Your task to perform on an android device: Open sound settings Image 0: 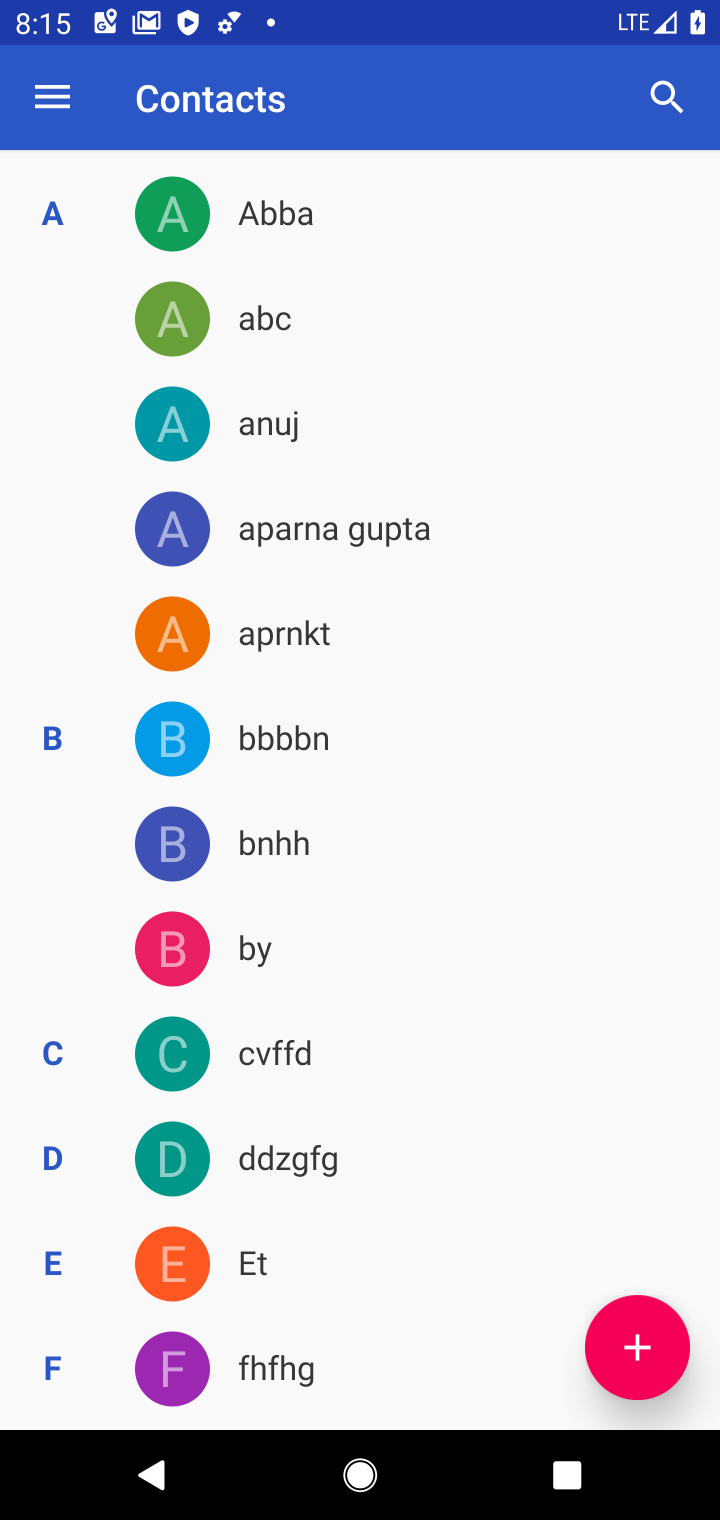
Step 0: press home button
Your task to perform on an android device: Open sound settings Image 1: 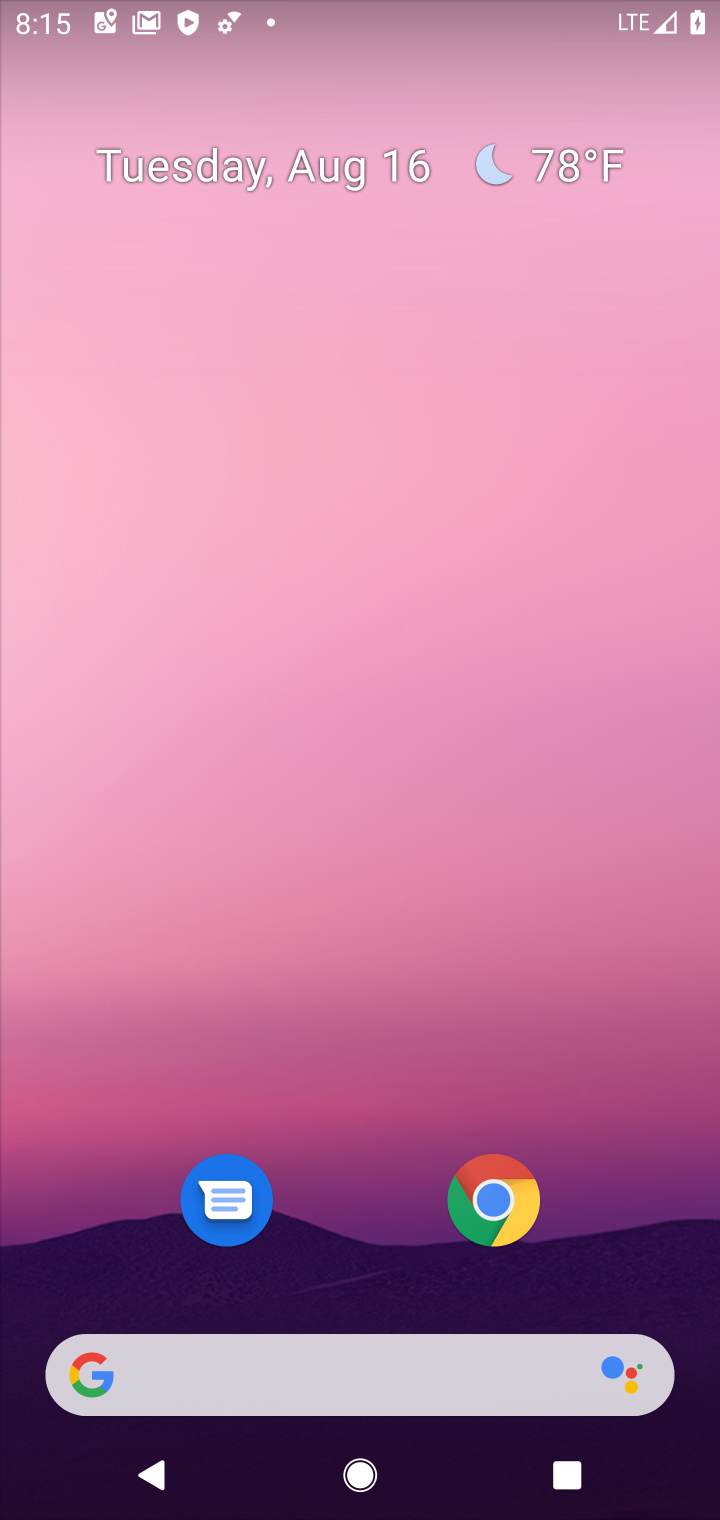
Step 1: drag from (707, 1253) to (563, 326)
Your task to perform on an android device: Open sound settings Image 2: 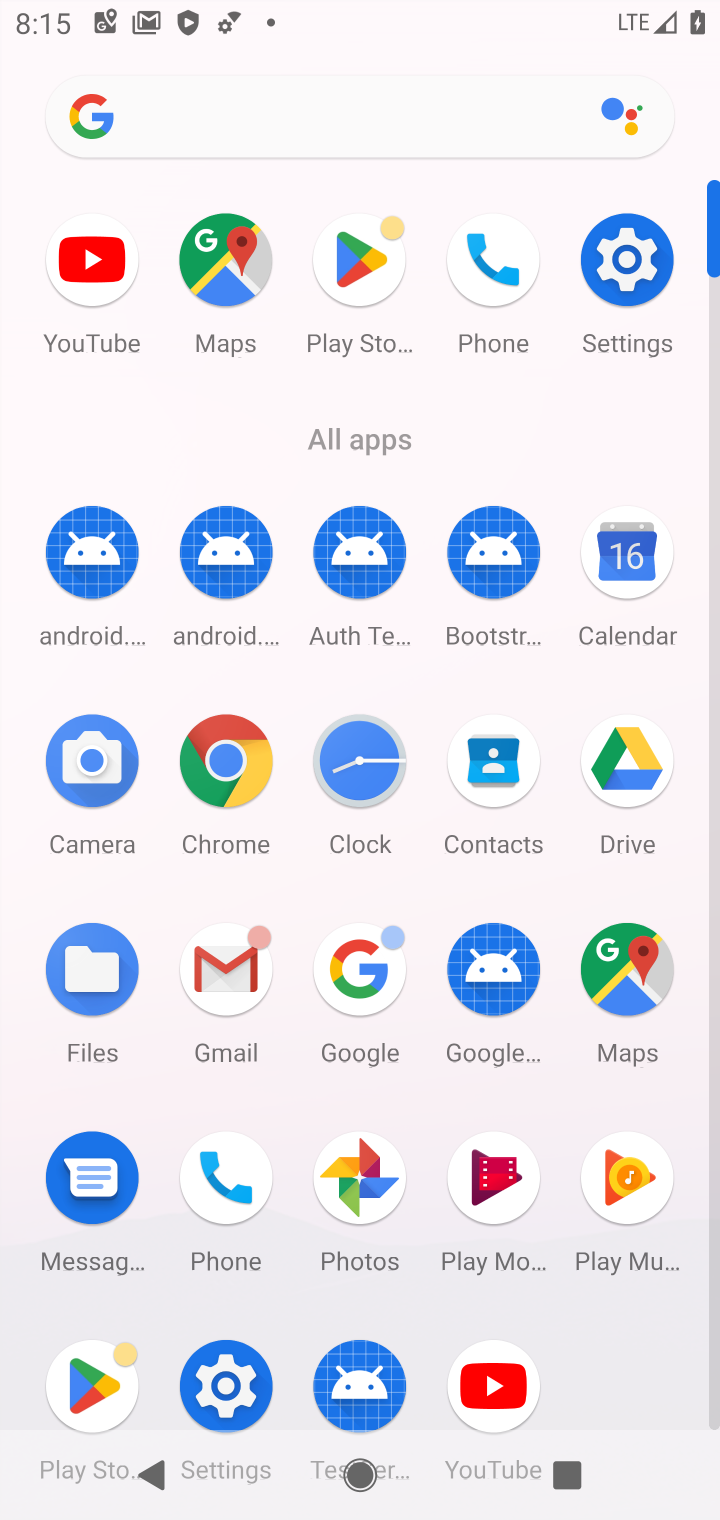
Step 2: click (227, 1387)
Your task to perform on an android device: Open sound settings Image 3: 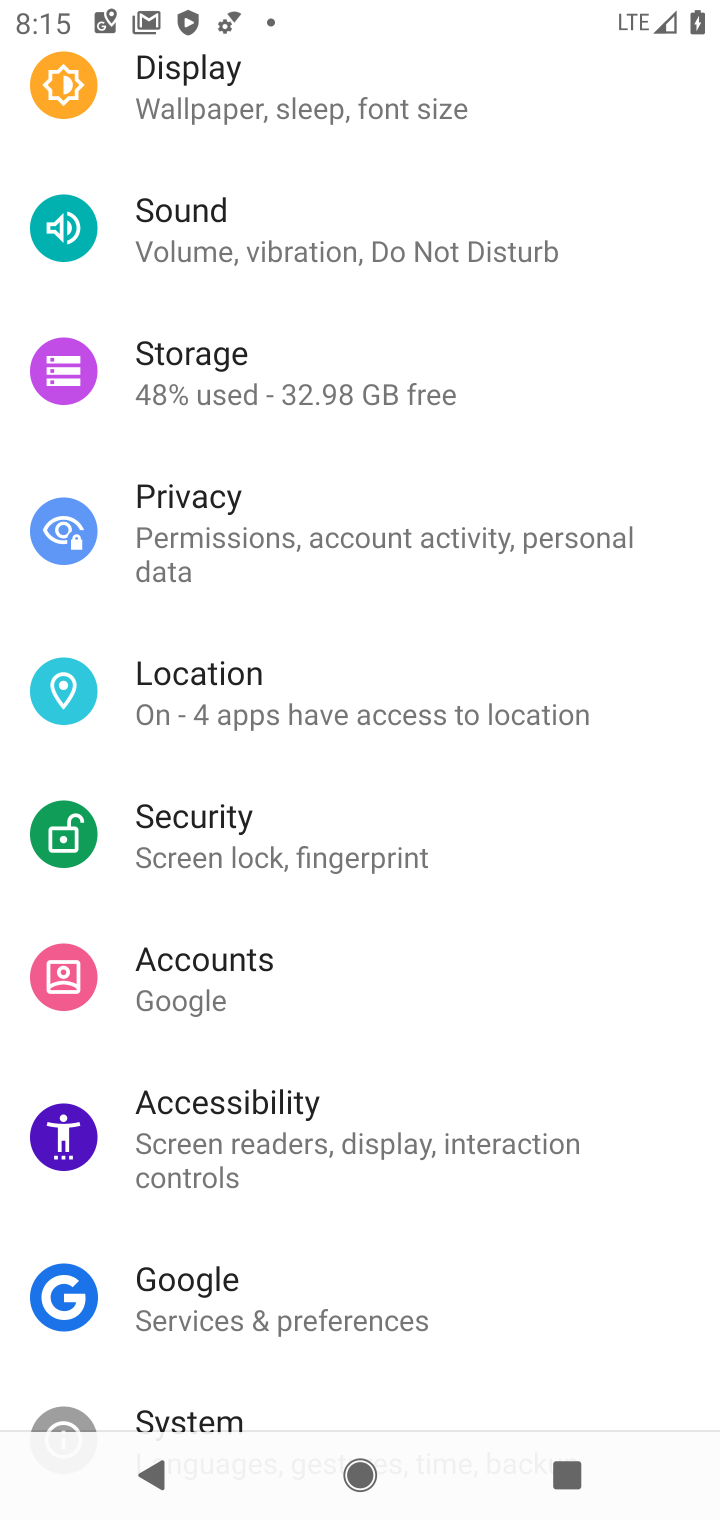
Step 3: click (210, 229)
Your task to perform on an android device: Open sound settings Image 4: 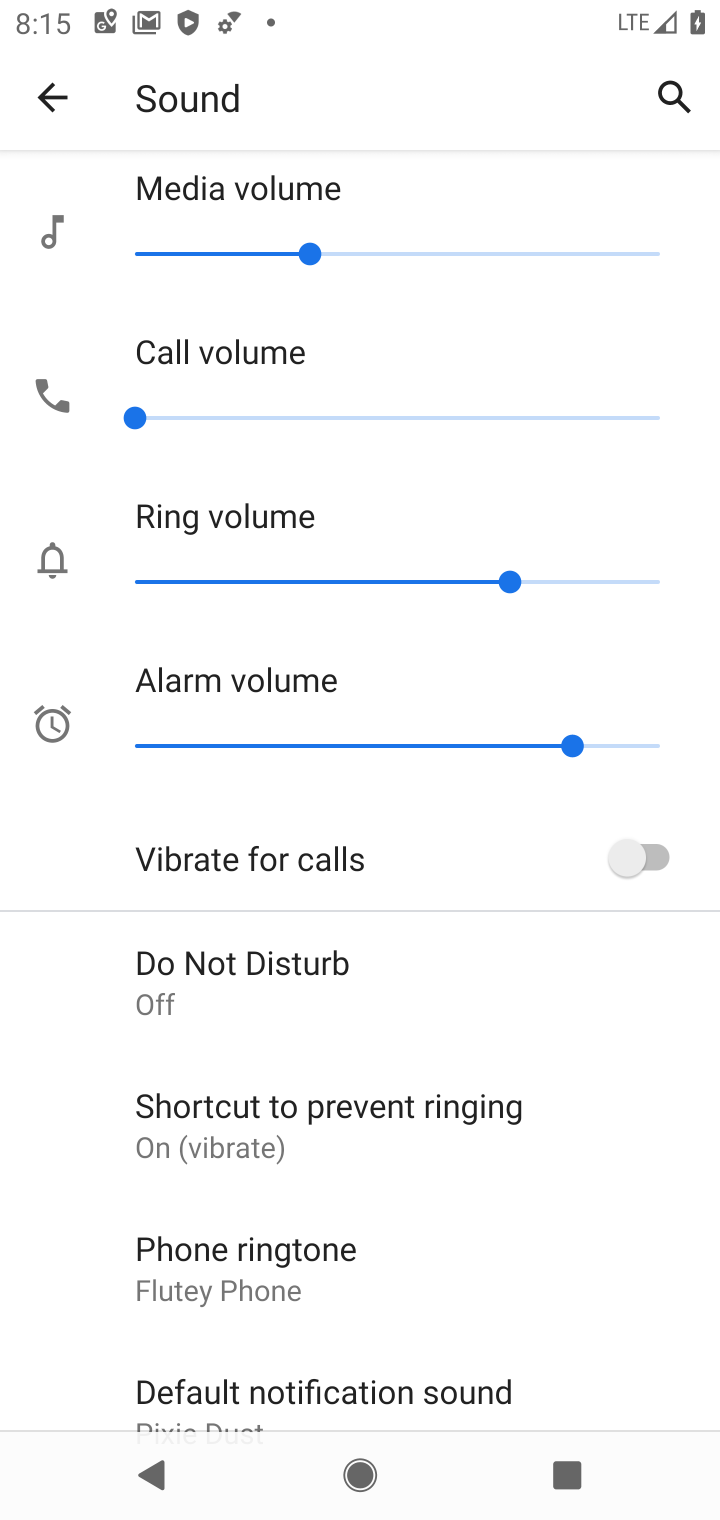
Step 4: drag from (519, 1242) to (528, 758)
Your task to perform on an android device: Open sound settings Image 5: 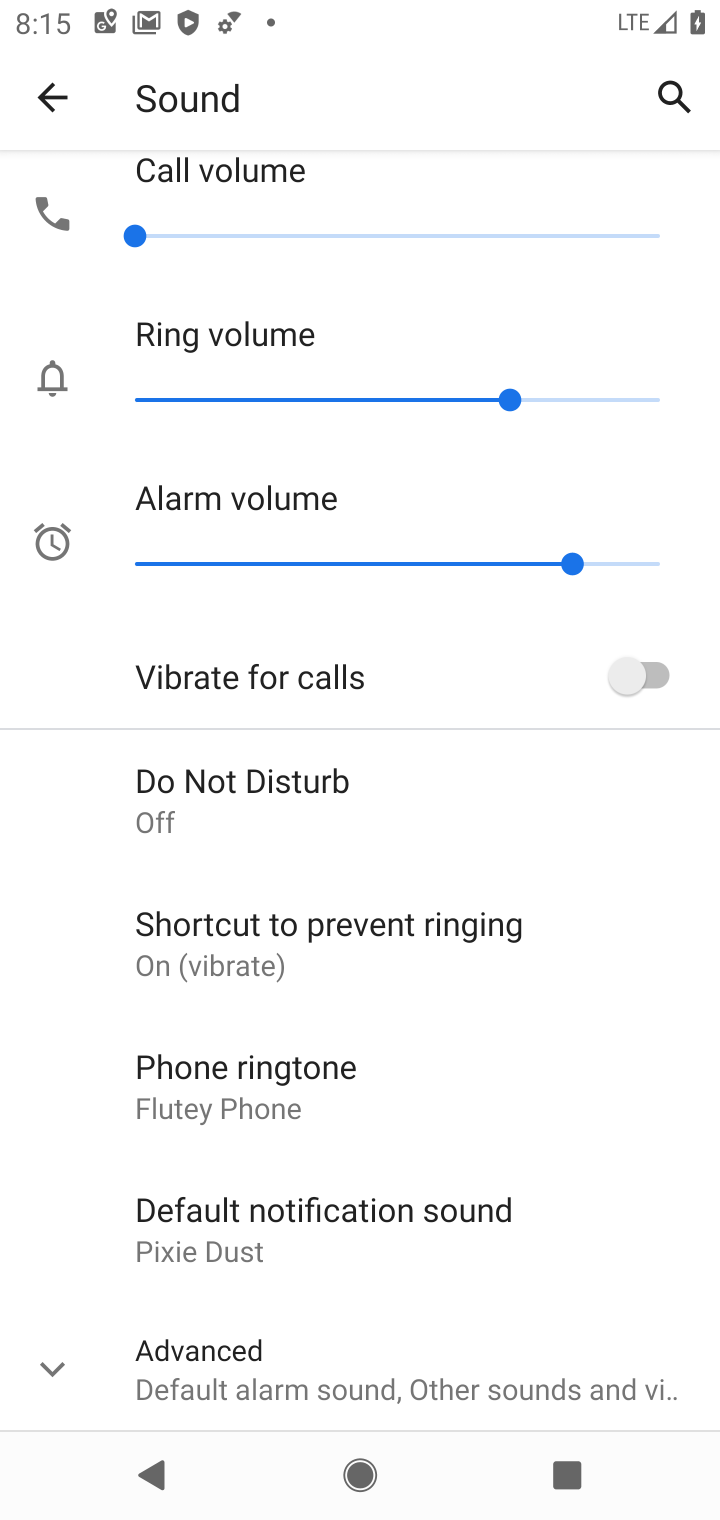
Step 5: drag from (524, 1223) to (521, 479)
Your task to perform on an android device: Open sound settings Image 6: 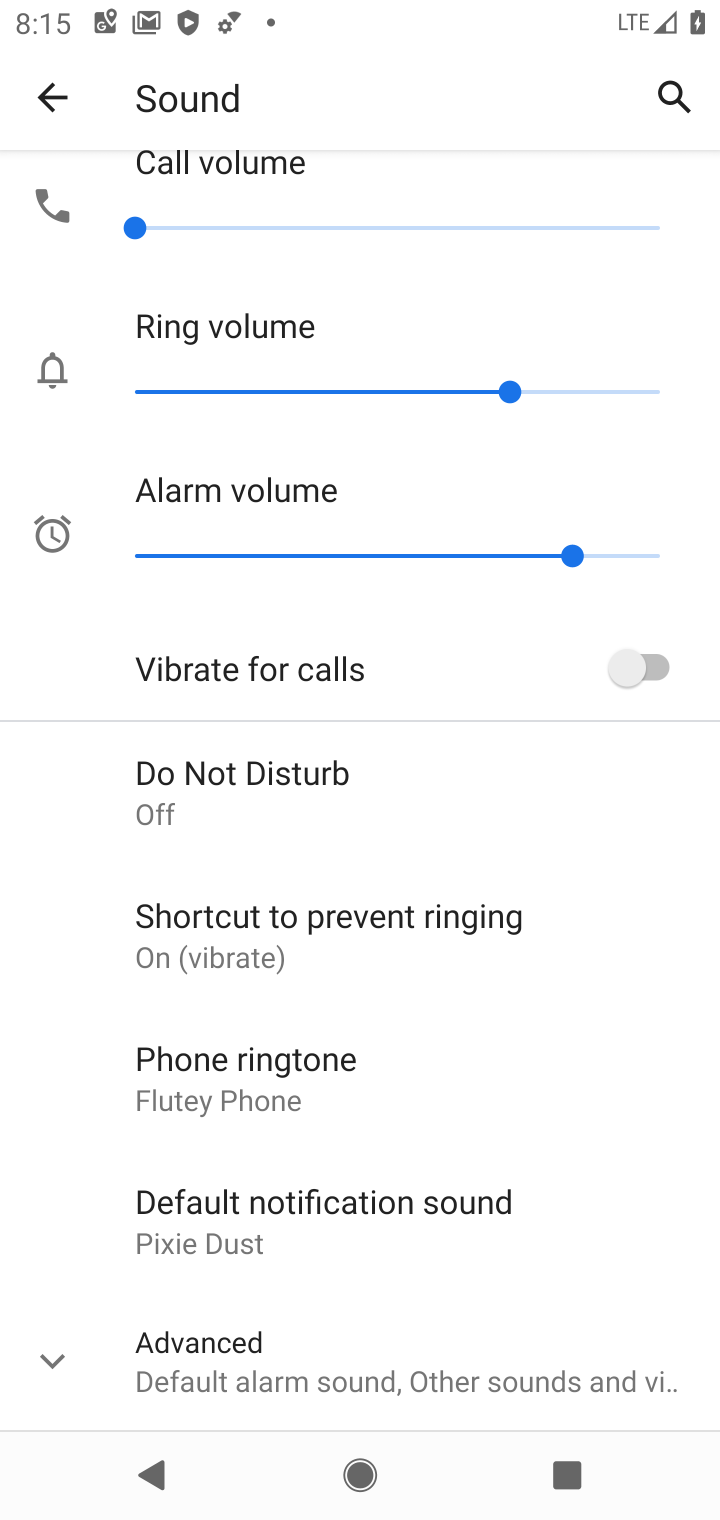
Step 6: drag from (469, 1172) to (490, 472)
Your task to perform on an android device: Open sound settings Image 7: 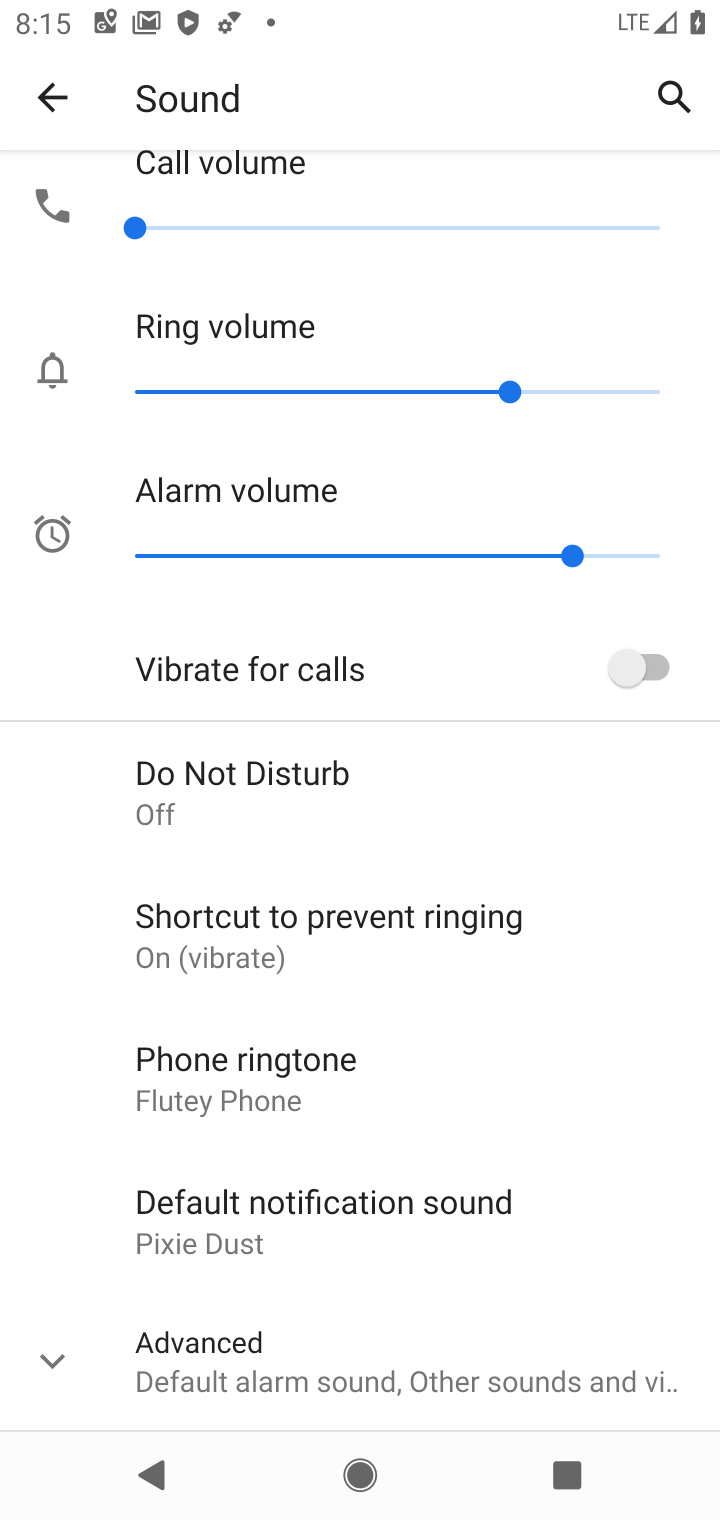
Step 7: click (49, 1360)
Your task to perform on an android device: Open sound settings Image 8: 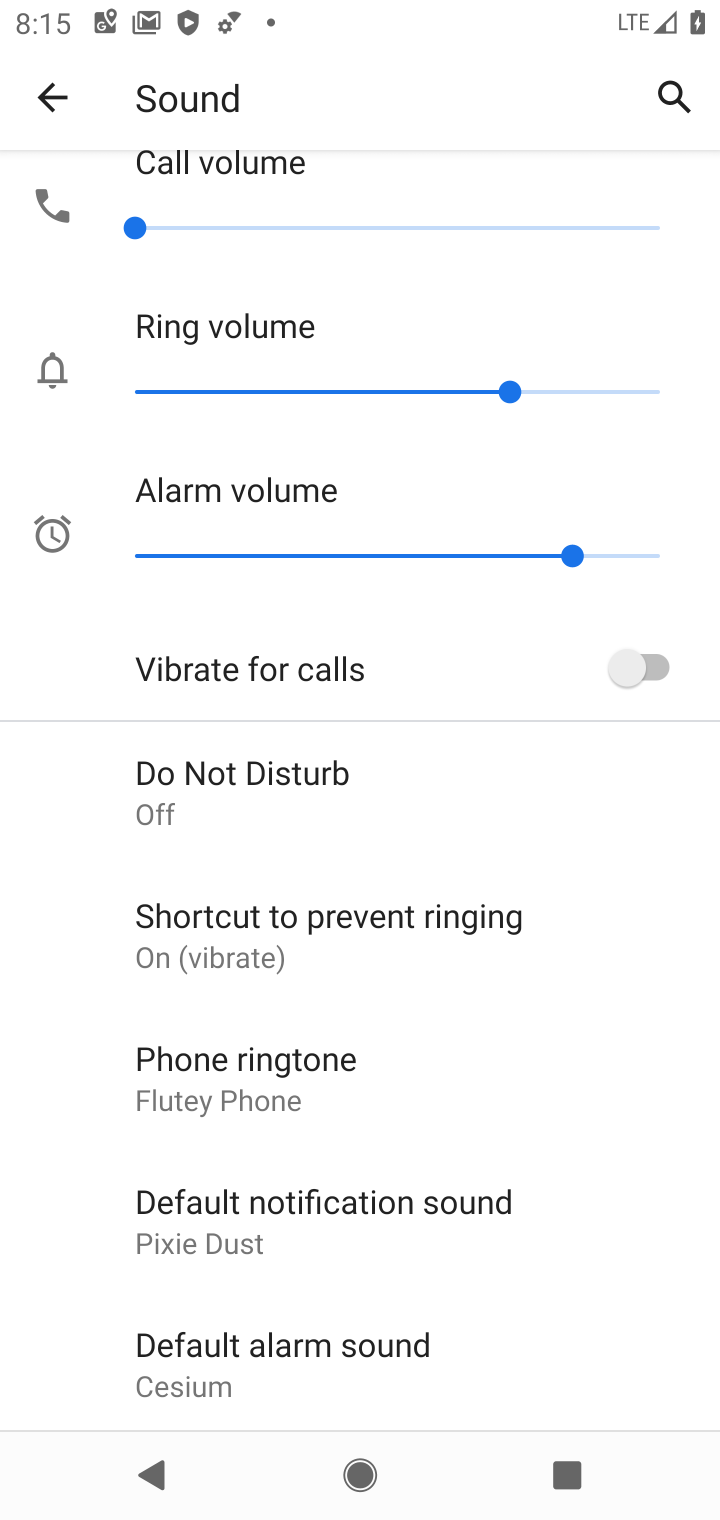
Step 8: task complete